Your task to perform on an android device: Open notification settings Image 0: 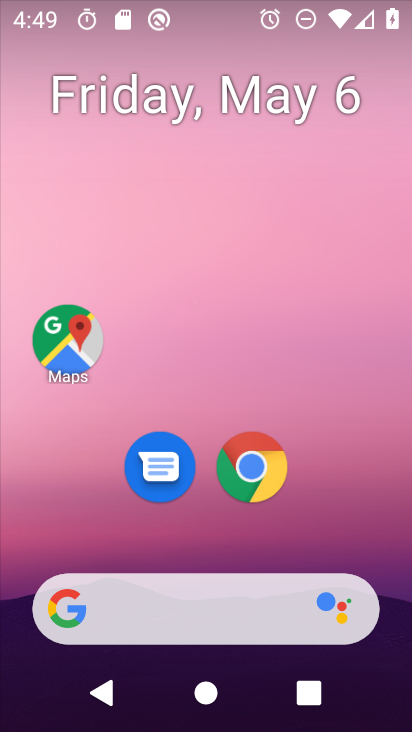
Step 0: drag from (345, 506) to (409, 198)
Your task to perform on an android device: Open notification settings Image 1: 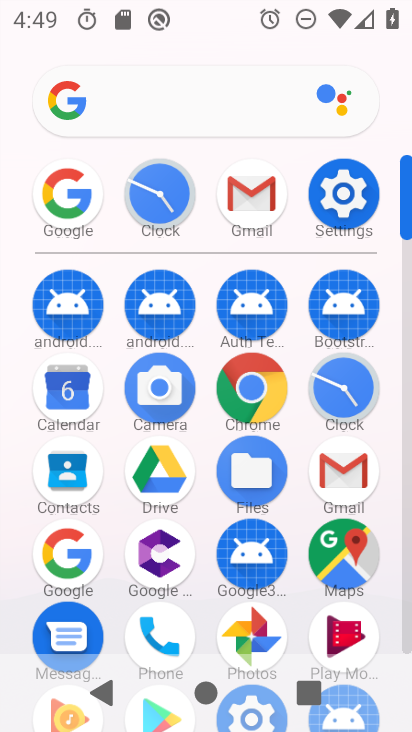
Step 1: click (360, 188)
Your task to perform on an android device: Open notification settings Image 2: 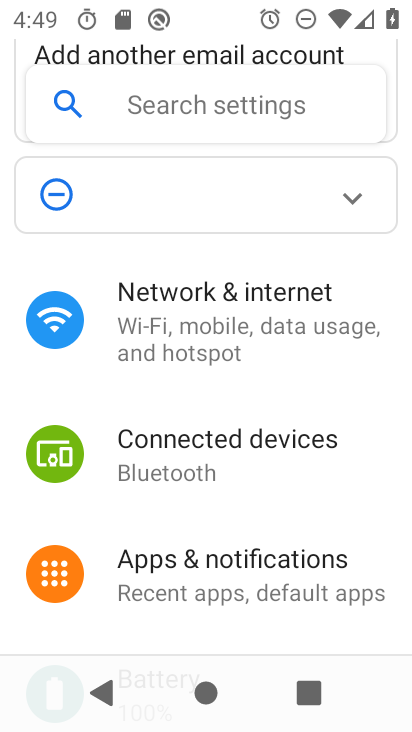
Step 2: click (177, 571)
Your task to perform on an android device: Open notification settings Image 3: 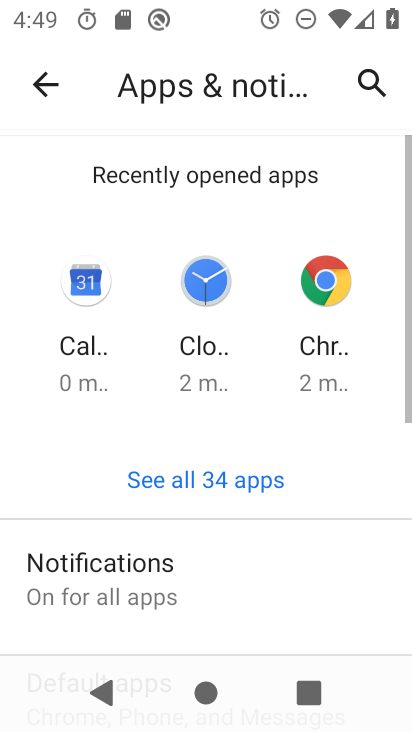
Step 3: click (141, 572)
Your task to perform on an android device: Open notification settings Image 4: 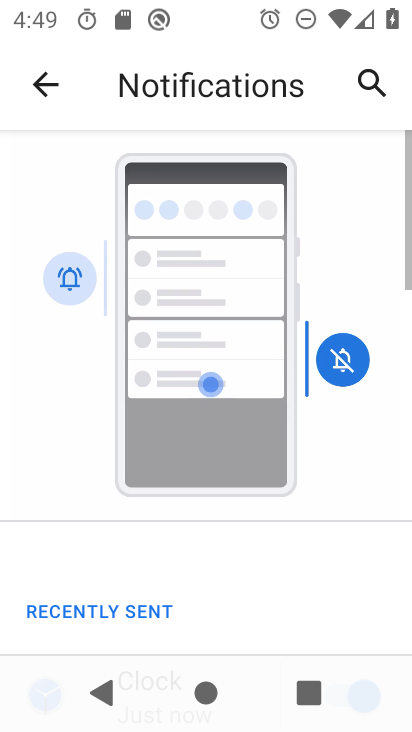
Step 4: drag from (217, 573) to (312, 291)
Your task to perform on an android device: Open notification settings Image 5: 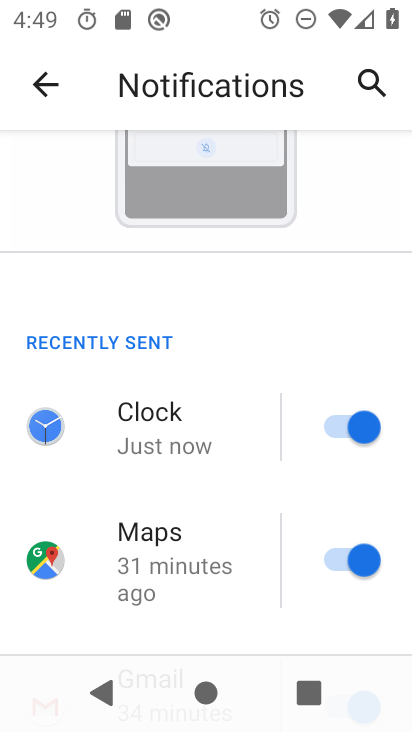
Step 5: drag from (301, 433) to (236, 634)
Your task to perform on an android device: Open notification settings Image 6: 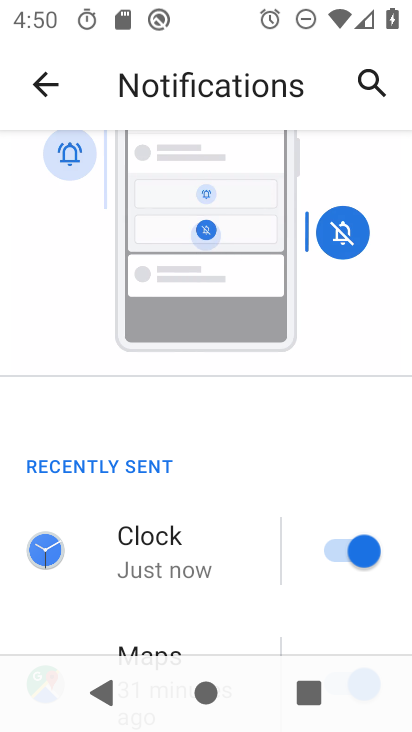
Step 6: press home button
Your task to perform on an android device: Open notification settings Image 7: 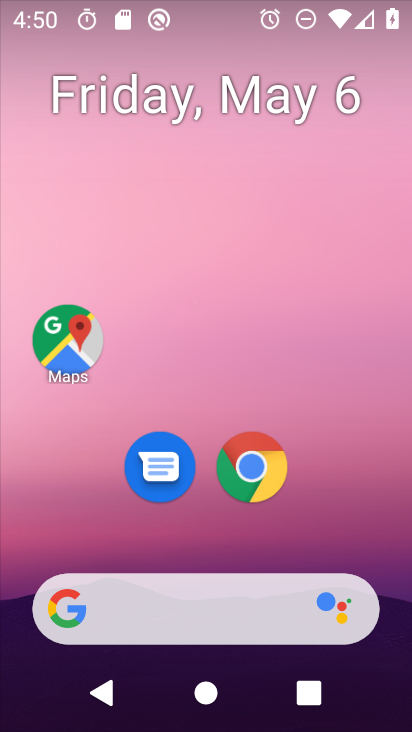
Step 7: drag from (312, 403) to (372, 144)
Your task to perform on an android device: Open notification settings Image 8: 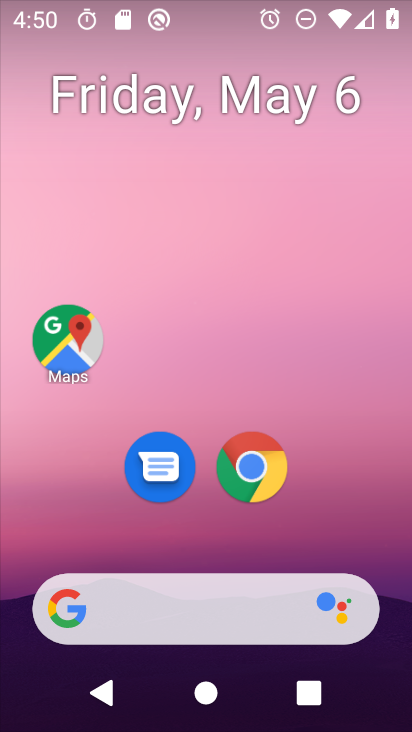
Step 8: drag from (271, 469) to (307, 124)
Your task to perform on an android device: Open notification settings Image 9: 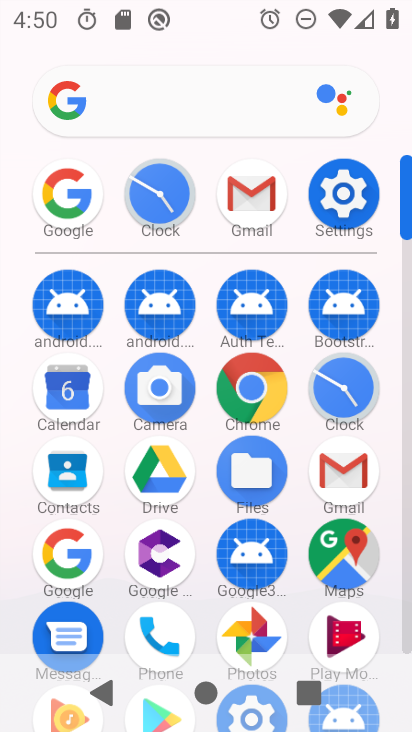
Step 9: click (335, 183)
Your task to perform on an android device: Open notification settings Image 10: 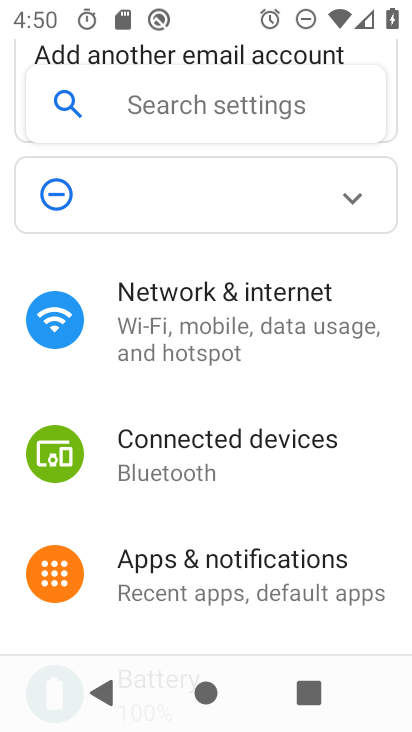
Step 10: click (181, 586)
Your task to perform on an android device: Open notification settings Image 11: 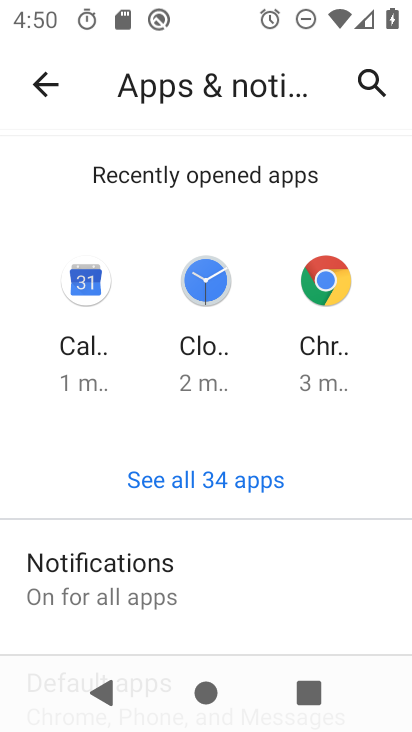
Step 11: task complete